Your task to perform on an android device: Open the Play Movies app and select the watchlist tab. Image 0: 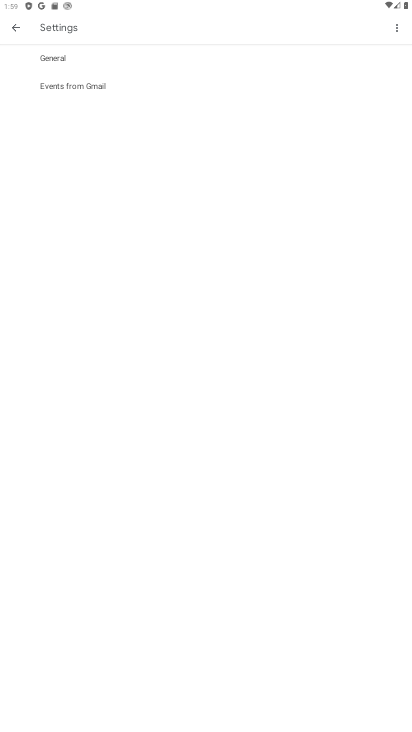
Step 0: press home button
Your task to perform on an android device: Open the Play Movies app and select the watchlist tab. Image 1: 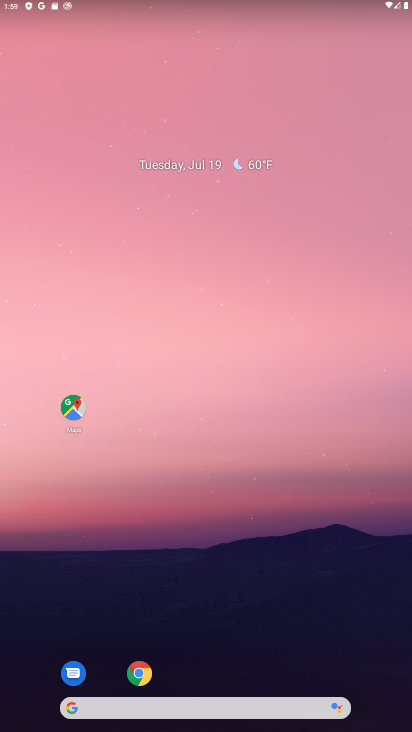
Step 1: drag from (378, 631) to (288, 162)
Your task to perform on an android device: Open the Play Movies app and select the watchlist tab. Image 2: 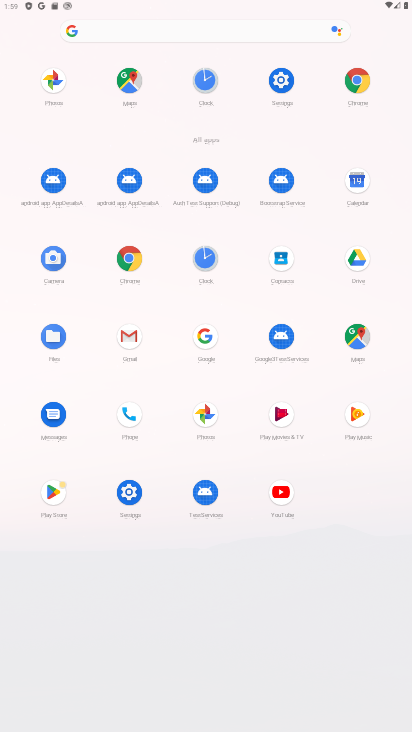
Step 2: click (285, 417)
Your task to perform on an android device: Open the Play Movies app and select the watchlist tab. Image 3: 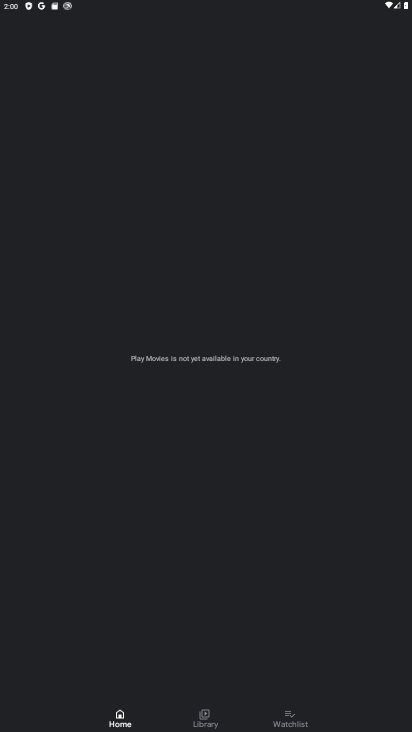
Step 3: click (290, 723)
Your task to perform on an android device: Open the Play Movies app and select the watchlist tab. Image 4: 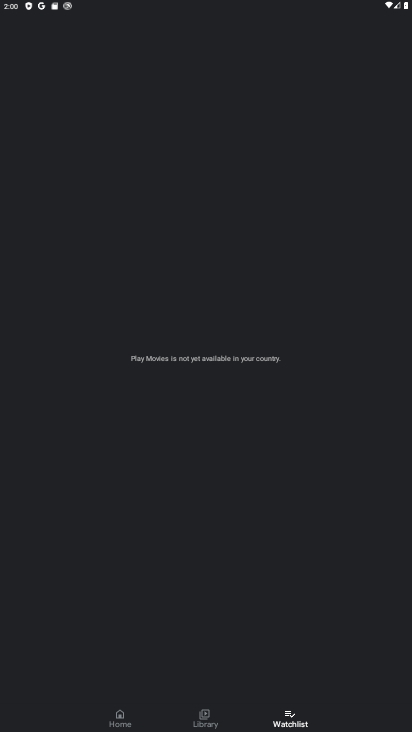
Step 4: task complete